Your task to perform on an android device: turn on airplane mode Image 0: 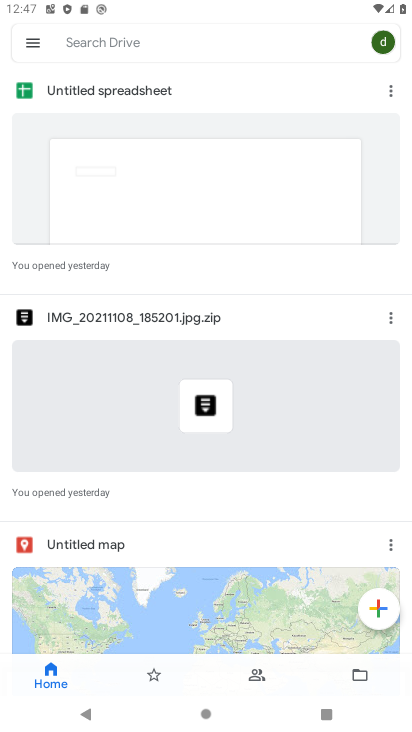
Step 0: press home button
Your task to perform on an android device: turn on airplane mode Image 1: 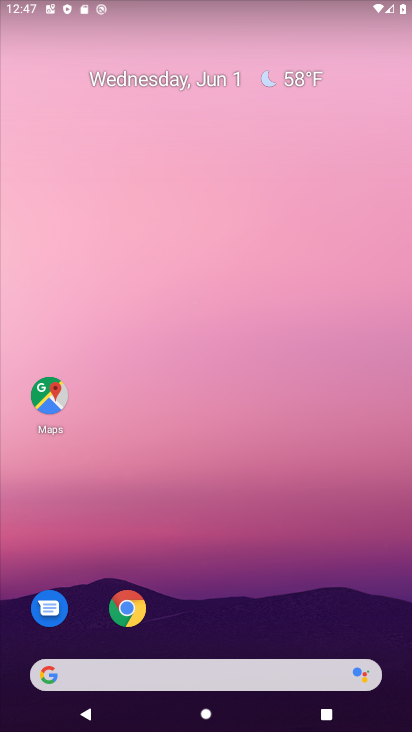
Step 1: drag from (304, 645) to (340, 53)
Your task to perform on an android device: turn on airplane mode Image 2: 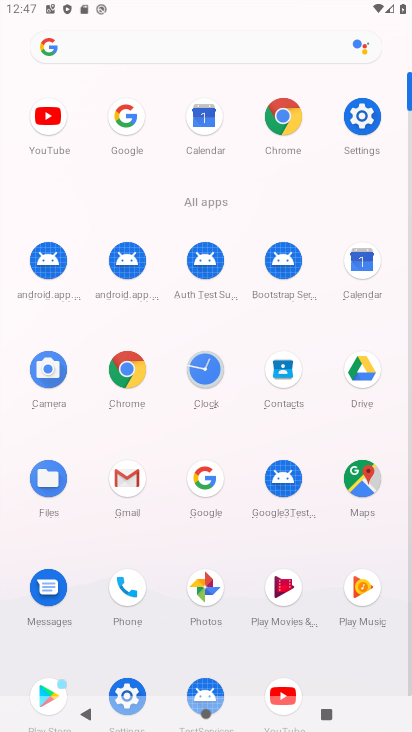
Step 2: click (354, 125)
Your task to perform on an android device: turn on airplane mode Image 3: 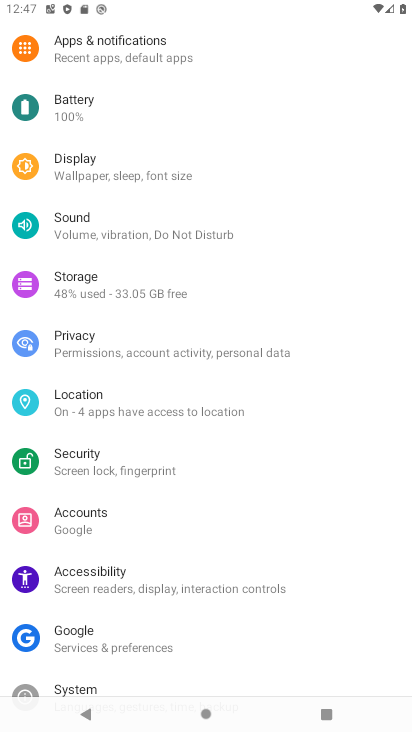
Step 3: drag from (159, 152) to (122, 447)
Your task to perform on an android device: turn on airplane mode Image 4: 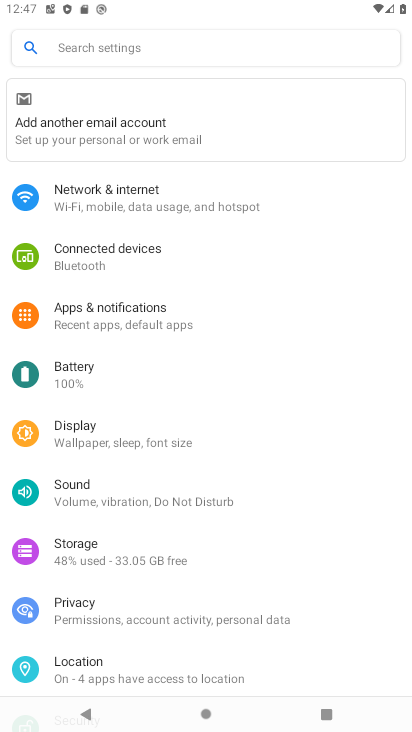
Step 4: click (171, 205)
Your task to perform on an android device: turn on airplane mode Image 5: 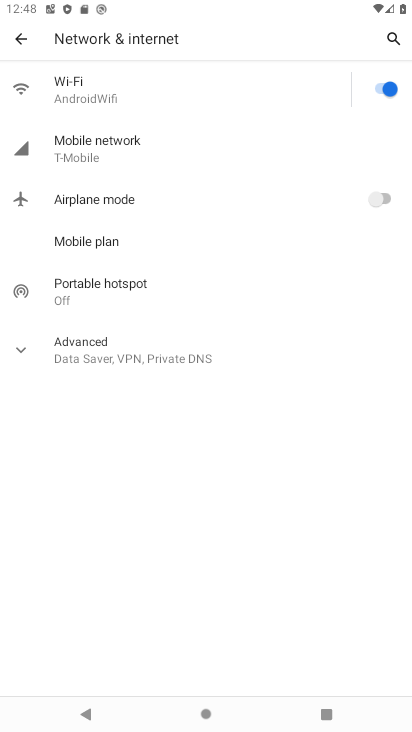
Step 5: click (391, 188)
Your task to perform on an android device: turn on airplane mode Image 6: 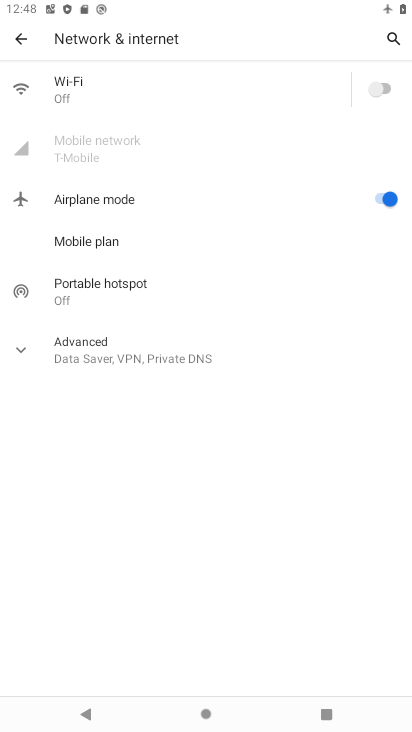
Step 6: task complete